Your task to perform on an android device: turn on sleep mode Image 0: 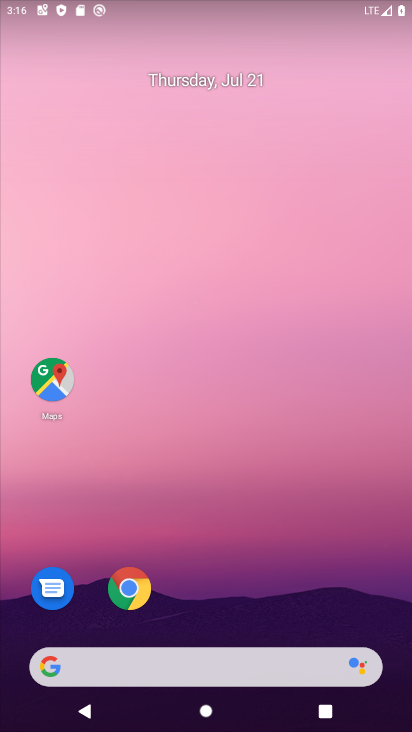
Step 0: drag from (268, 600) to (266, 229)
Your task to perform on an android device: turn on sleep mode Image 1: 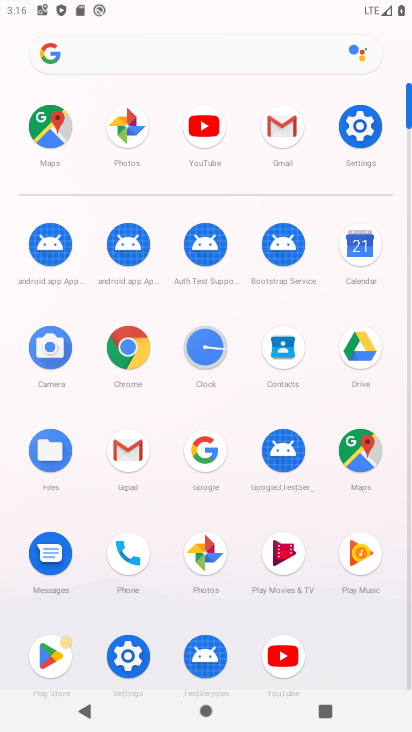
Step 1: click (356, 118)
Your task to perform on an android device: turn on sleep mode Image 2: 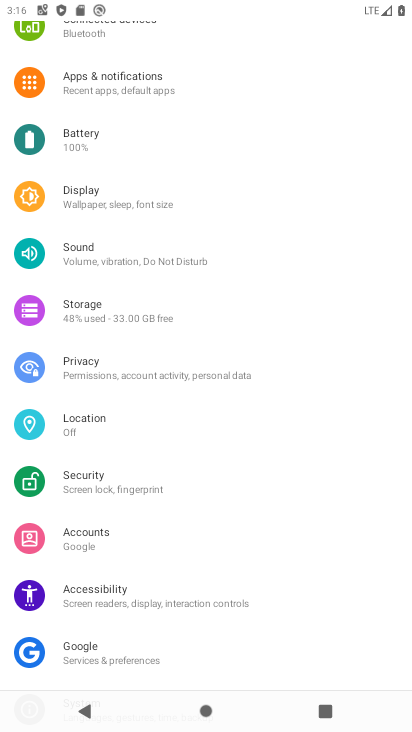
Step 2: click (128, 211)
Your task to perform on an android device: turn on sleep mode Image 3: 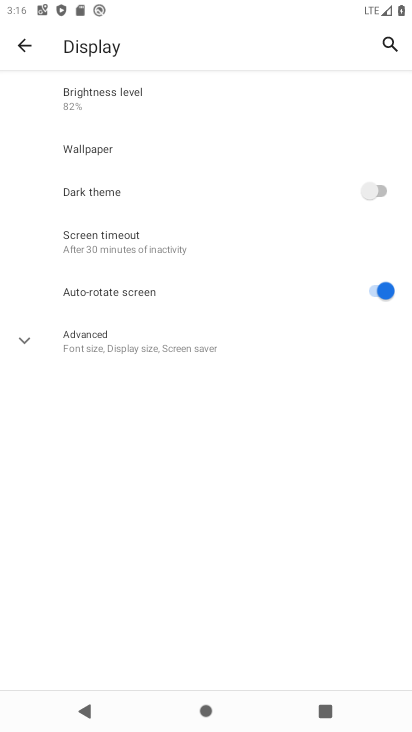
Step 3: click (190, 335)
Your task to perform on an android device: turn on sleep mode Image 4: 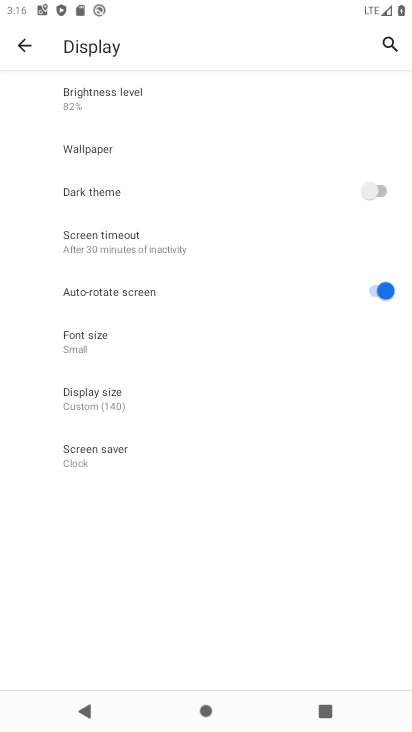
Step 4: task complete